Your task to perform on an android device: turn smart compose on in the gmail app Image 0: 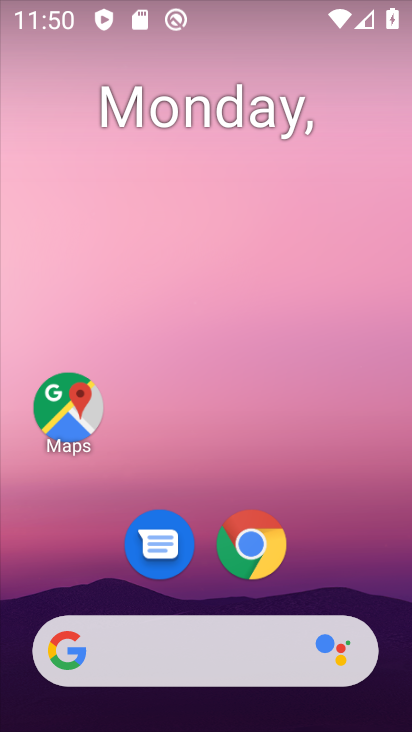
Step 0: drag from (350, 506) to (343, 172)
Your task to perform on an android device: turn smart compose on in the gmail app Image 1: 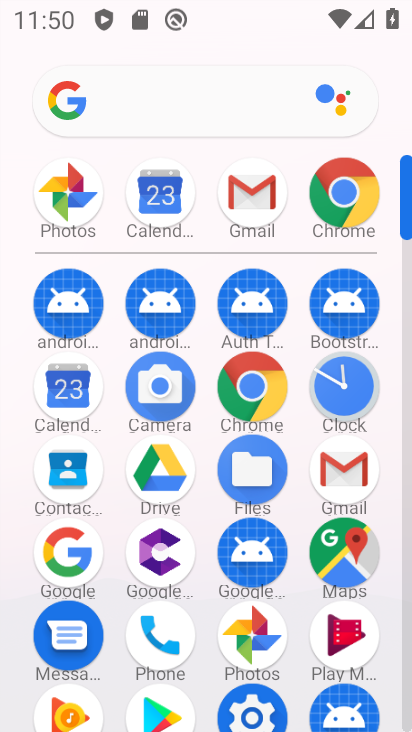
Step 1: click (230, 192)
Your task to perform on an android device: turn smart compose on in the gmail app Image 2: 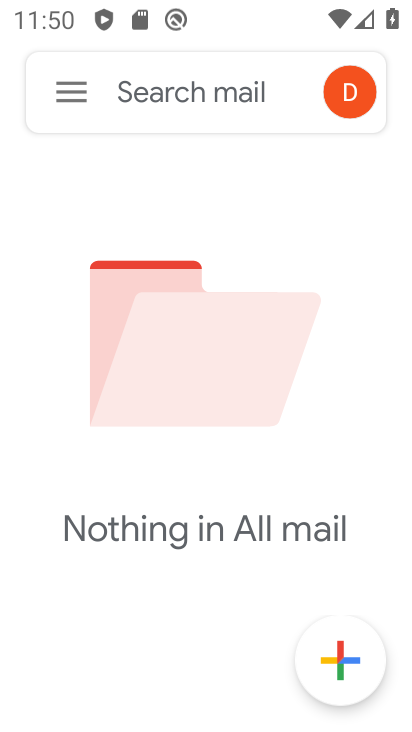
Step 2: click (82, 109)
Your task to perform on an android device: turn smart compose on in the gmail app Image 3: 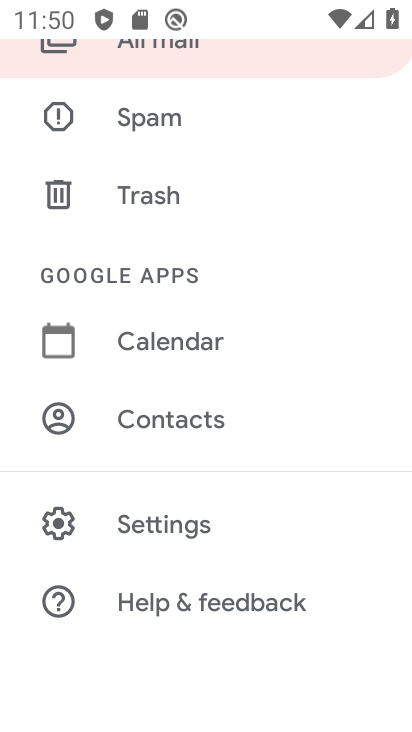
Step 3: drag from (190, 251) to (196, 631)
Your task to perform on an android device: turn smart compose on in the gmail app Image 4: 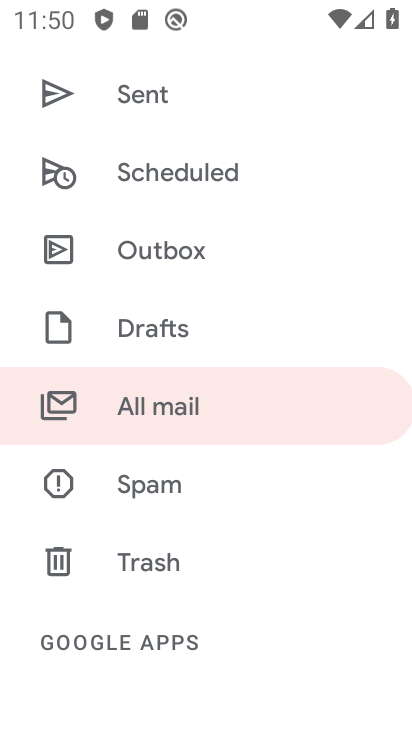
Step 4: drag from (165, 210) to (174, 631)
Your task to perform on an android device: turn smart compose on in the gmail app Image 5: 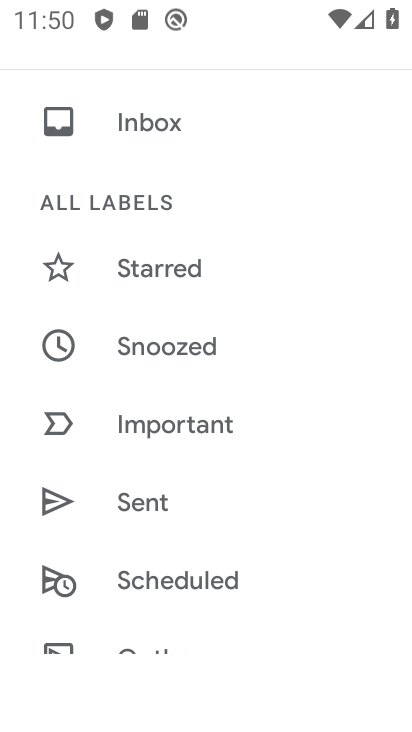
Step 5: drag from (174, 265) to (136, 603)
Your task to perform on an android device: turn smart compose on in the gmail app Image 6: 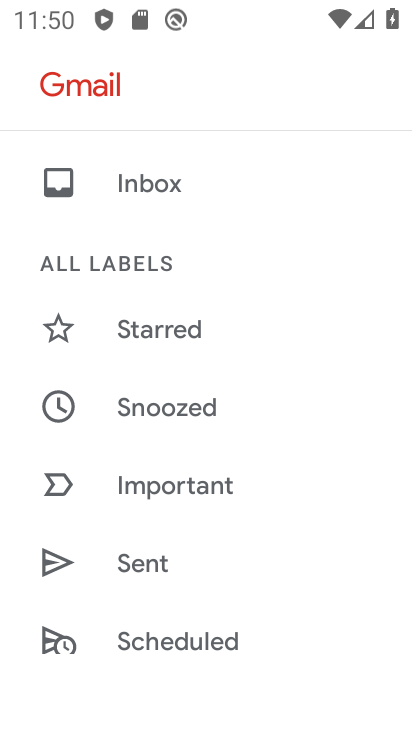
Step 6: drag from (323, 573) to (309, 209)
Your task to perform on an android device: turn smart compose on in the gmail app Image 7: 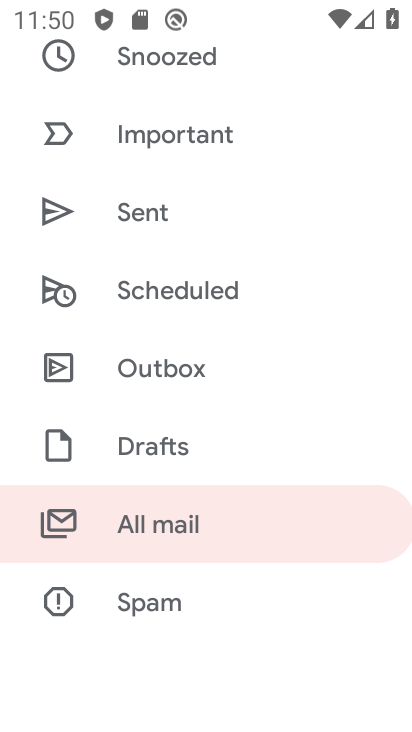
Step 7: drag from (227, 565) to (217, 127)
Your task to perform on an android device: turn smart compose on in the gmail app Image 8: 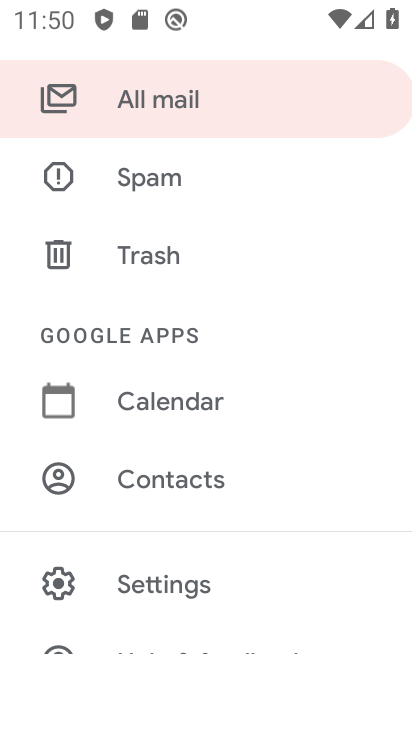
Step 8: click (206, 574)
Your task to perform on an android device: turn smart compose on in the gmail app Image 9: 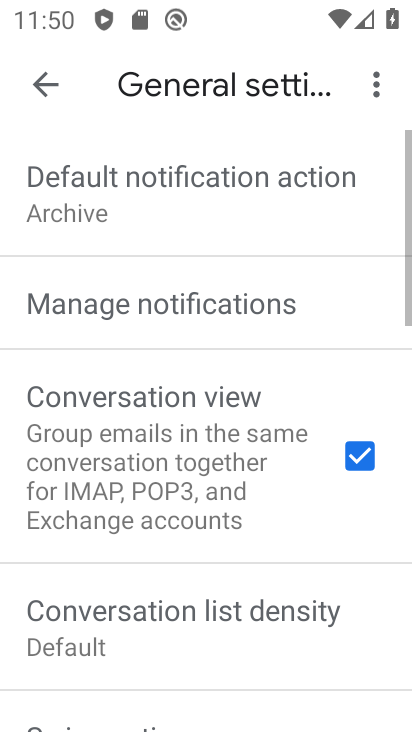
Step 9: drag from (216, 350) to (222, 230)
Your task to perform on an android device: turn smart compose on in the gmail app Image 10: 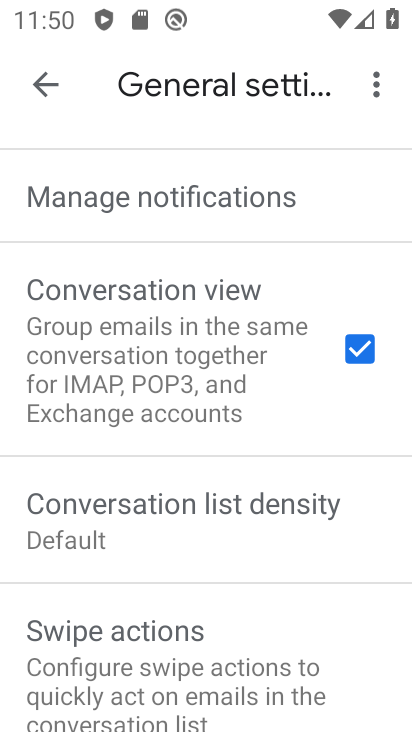
Step 10: drag from (226, 549) to (238, 265)
Your task to perform on an android device: turn smart compose on in the gmail app Image 11: 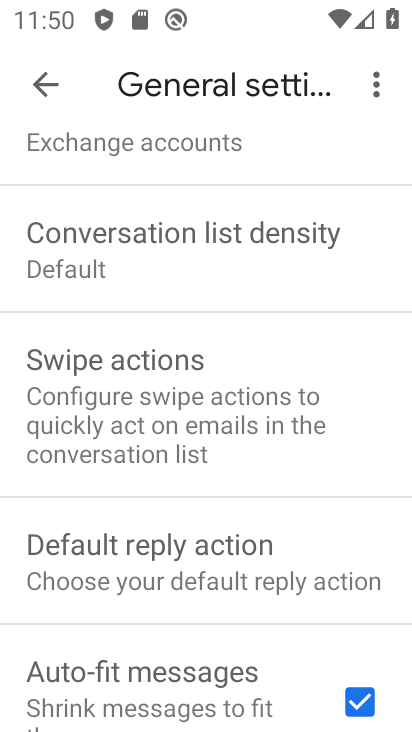
Step 11: drag from (230, 530) to (231, 259)
Your task to perform on an android device: turn smart compose on in the gmail app Image 12: 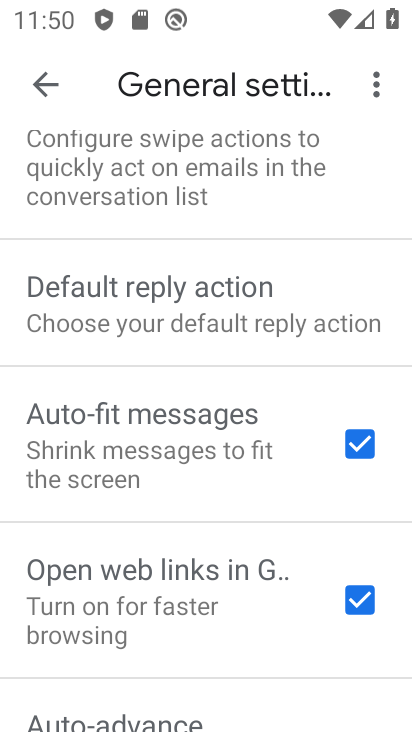
Step 12: drag from (198, 616) to (197, 300)
Your task to perform on an android device: turn smart compose on in the gmail app Image 13: 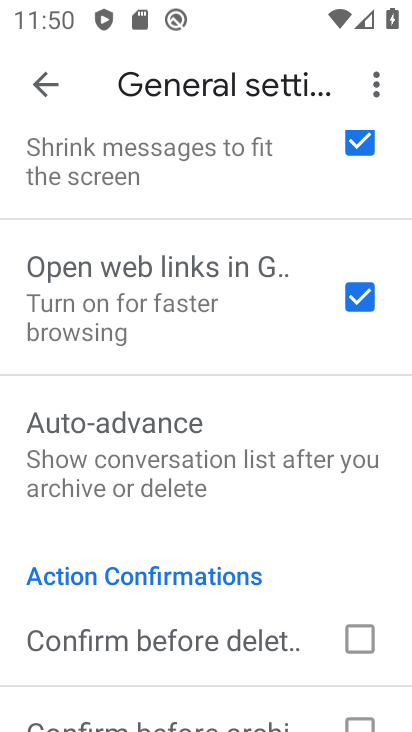
Step 13: drag from (200, 630) to (205, 333)
Your task to perform on an android device: turn smart compose on in the gmail app Image 14: 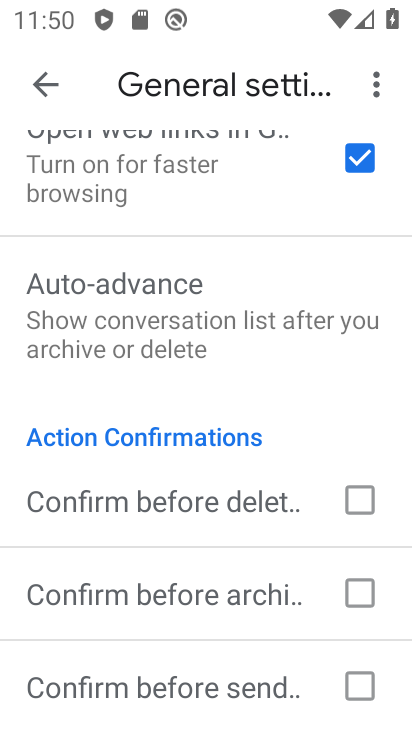
Step 14: drag from (148, 526) to (179, 269)
Your task to perform on an android device: turn smart compose on in the gmail app Image 15: 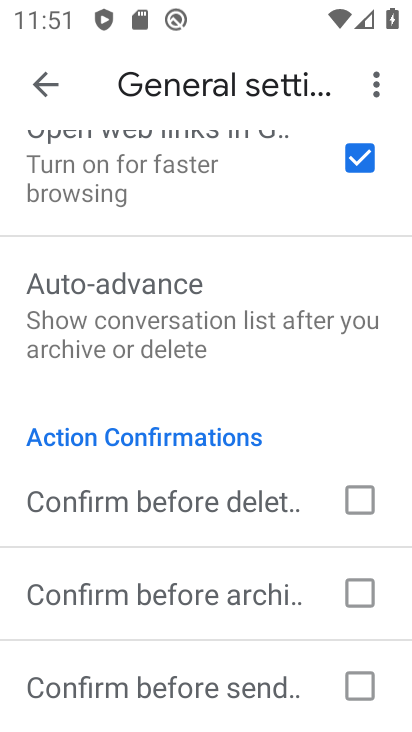
Step 15: drag from (204, 296) to (211, 677)
Your task to perform on an android device: turn smart compose on in the gmail app Image 16: 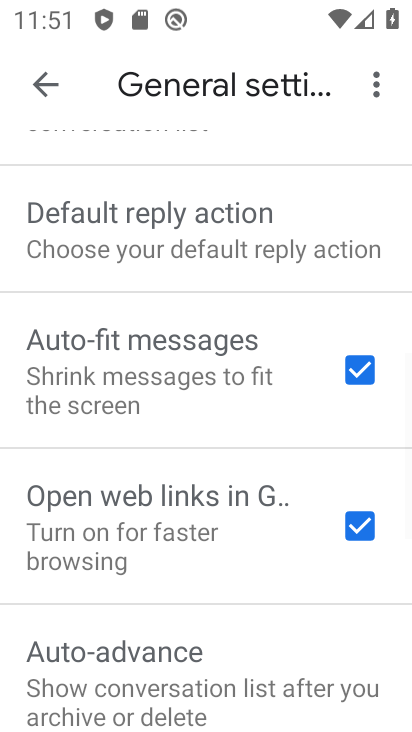
Step 16: drag from (189, 381) to (194, 654)
Your task to perform on an android device: turn smart compose on in the gmail app Image 17: 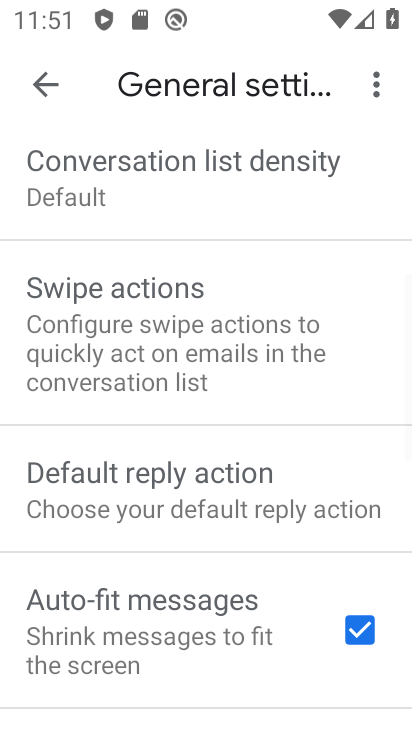
Step 17: drag from (147, 336) to (164, 611)
Your task to perform on an android device: turn smart compose on in the gmail app Image 18: 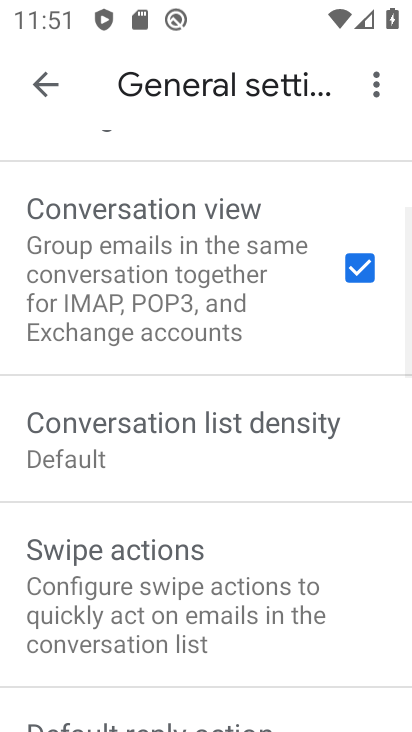
Step 18: drag from (177, 290) to (184, 599)
Your task to perform on an android device: turn smart compose on in the gmail app Image 19: 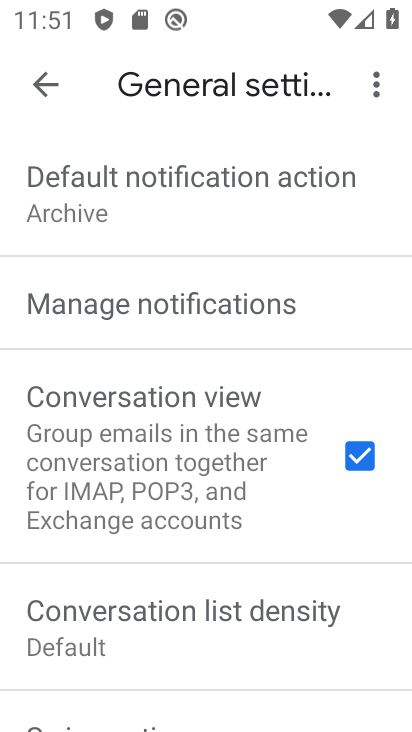
Step 19: drag from (187, 308) to (185, 537)
Your task to perform on an android device: turn smart compose on in the gmail app Image 20: 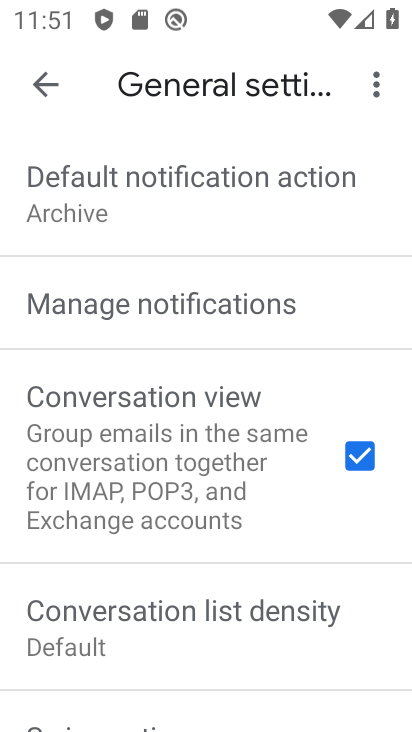
Step 20: press back button
Your task to perform on an android device: turn smart compose on in the gmail app Image 21: 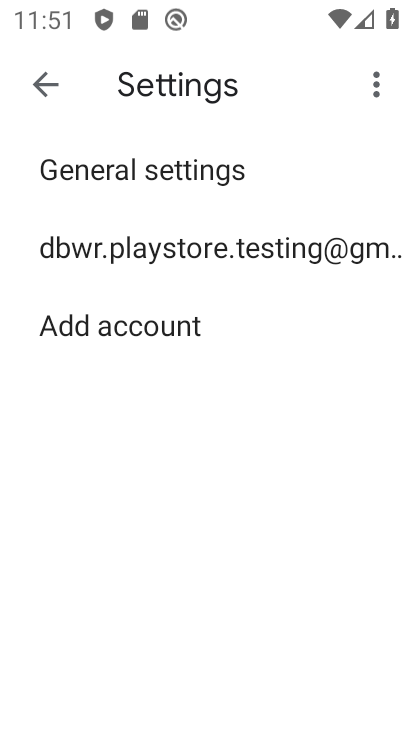
Step 21: click (157, 174)
Your task to perform on an android device: turn smart compose on in the gmail app Image 22: 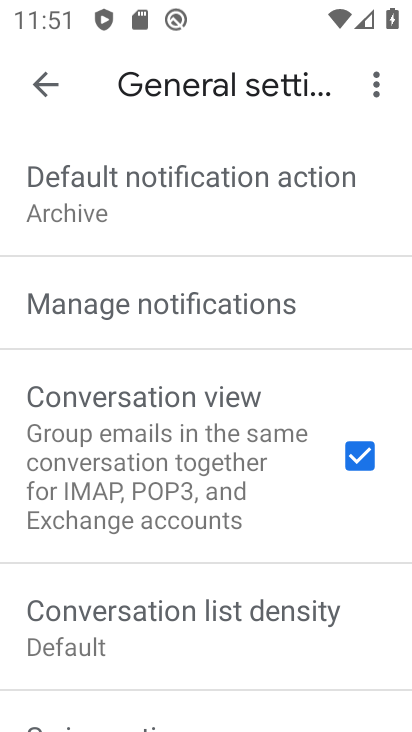
Step 22: task complete